Your task to perform on an android device: Do I have any events this weekend? Image 0: 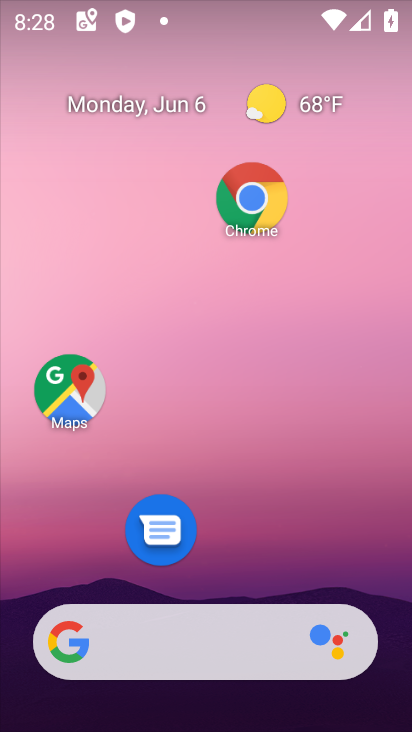
Step 0: drag from (228, 559) to (194, 99)
Your task to perform on an android device: Do I have any events this weekend? Image 1: 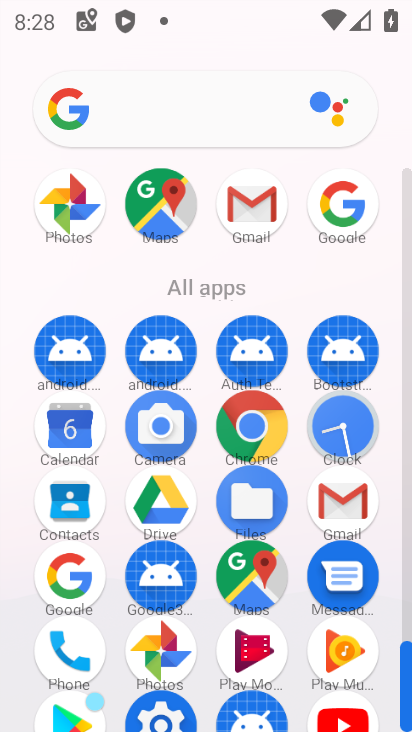
Step 1: click (82, 436)
Your task to perform on an android device: Do I have any events this weekend? Image 2: 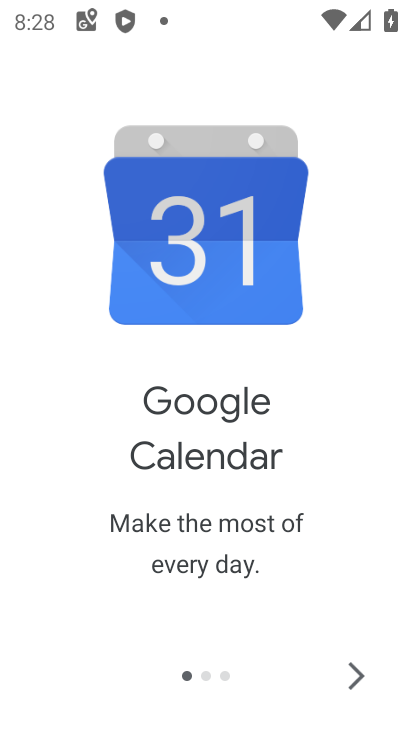
Step 2: click (352, 679)
Your task to perform on an android device: Do I have any events this weekend? Image 3: 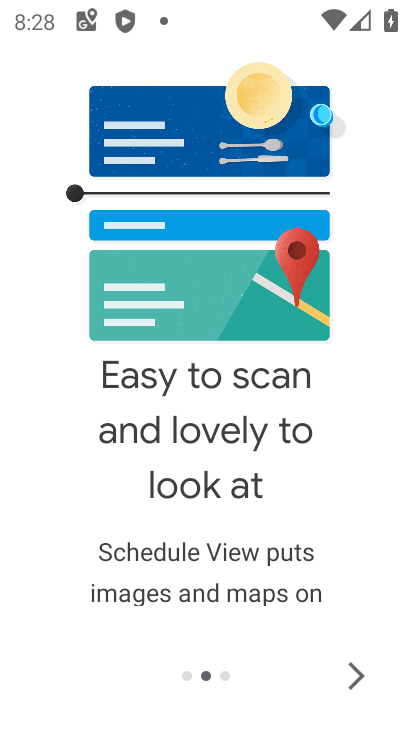
Step 3: click (352, 679)
Your task to perform on an android device: Do I have any events this weekend? Image 4: 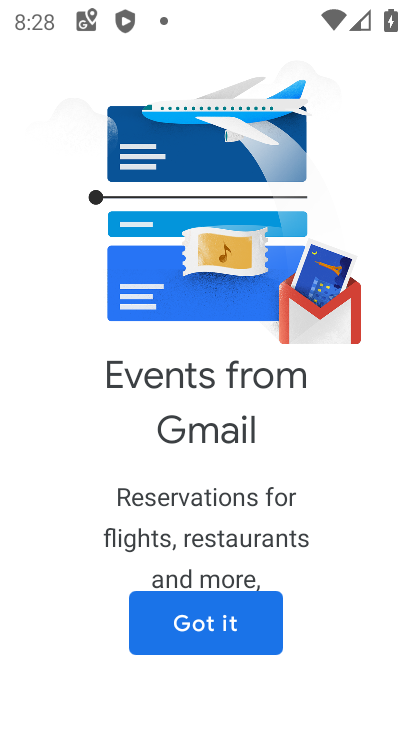
Step 4: click (254, 622)
Your task to perform on an android device: Do I have any events this weekend? Image 5: 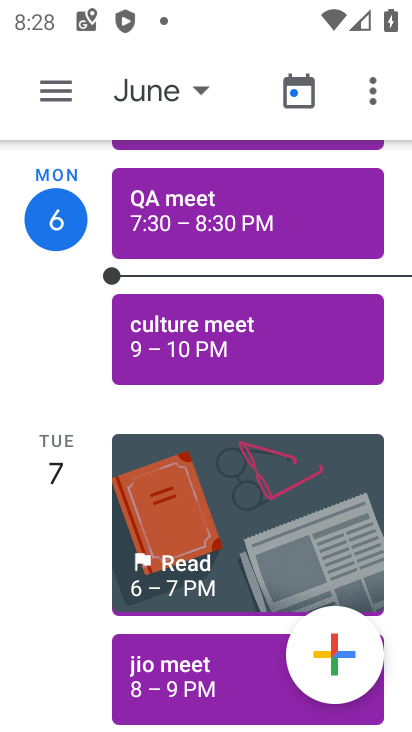
Step 5: click (166, 91)
Your task to perform on an android device: Do I have any events this weekend? Image 6: 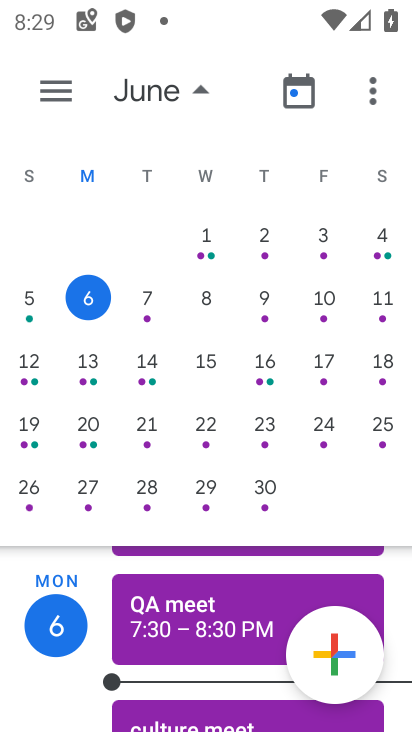
Step 6: click (373, 298)
Your task to perform on an android device: Do I have any events this weekend? Image 7: 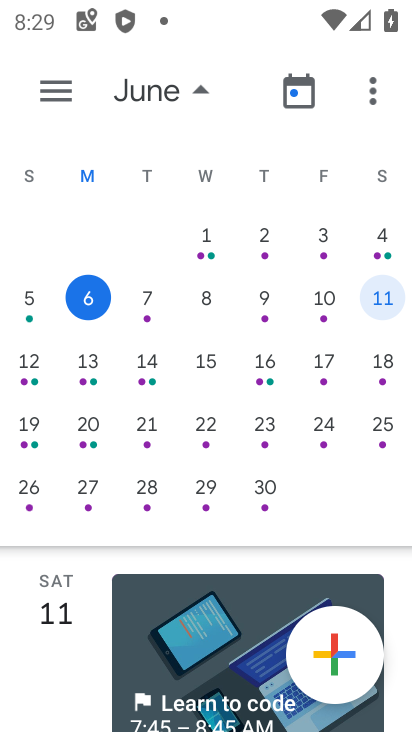
Step 7: click (404, 287)
Your task to perform on an android device: Do I have any events this weekend? Image 8: 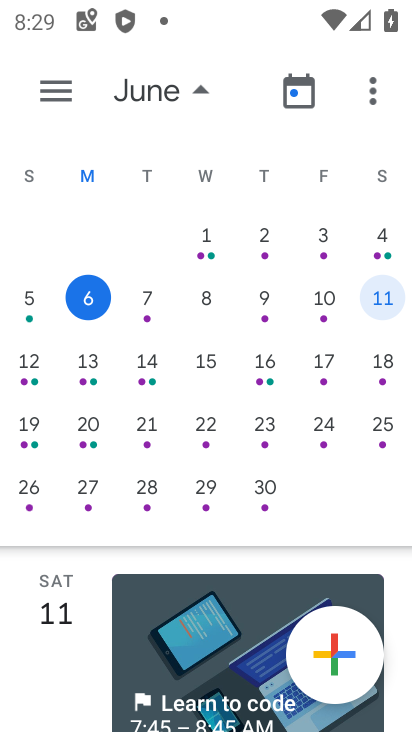
Step 8: click (363, 296)
Your task to perform on an android device: Do I have any events this weekend? Image 9: 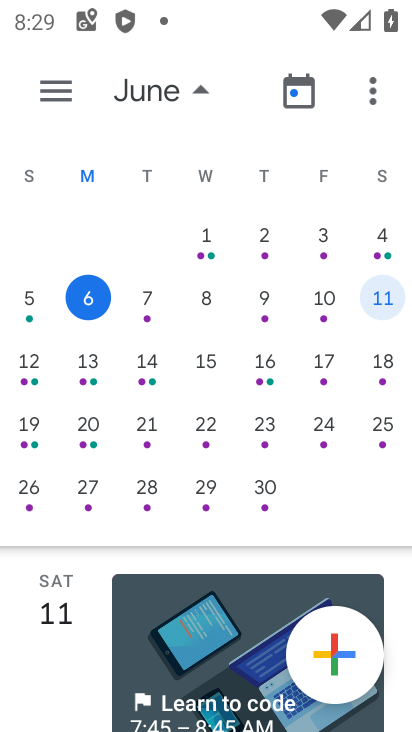
Step 9: task complete